Your task to perform on an android device: Open notification settings Image 0: 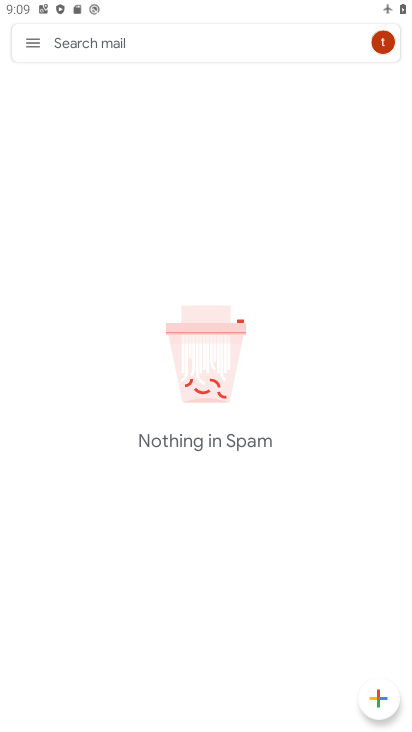
Step 0: press home button
Your task to perform on an android device: Open notification settings Image 1: 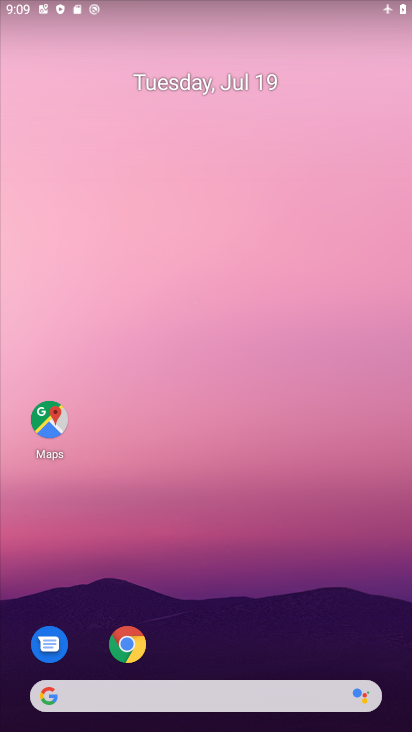
Step 1: drag from (201, 662) to (312, 15)
Your task to perform on an android device: Open notification settings Image 2: 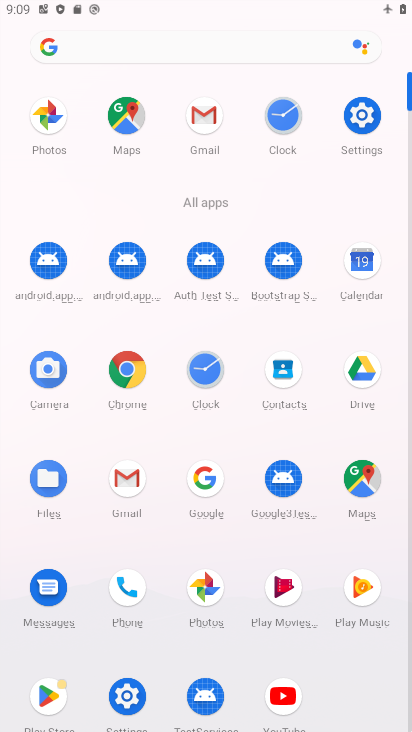
Step 2: click (362, 125)
Your task to perform on an android device: Open notification settings Image 3: 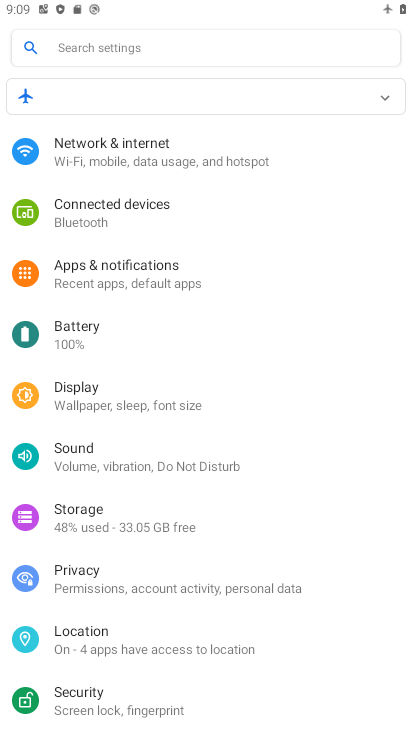
Step 3: click (131, 271)
Your task to perform on an android device: Open notification settings Image 4: 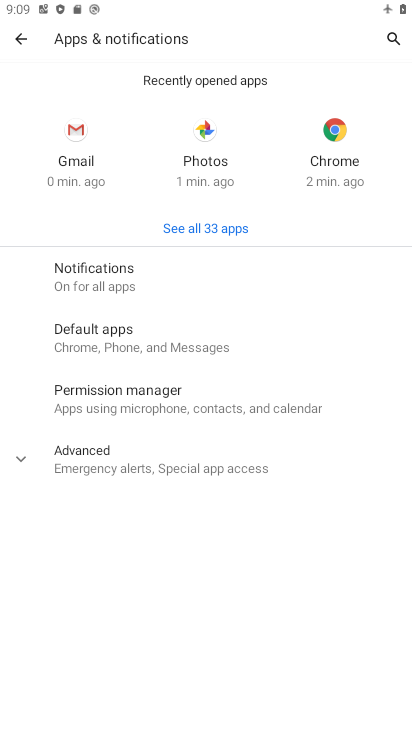
Step 4: click (131, 271)
Your task to perform on an android device: Open notification settings Image 5: 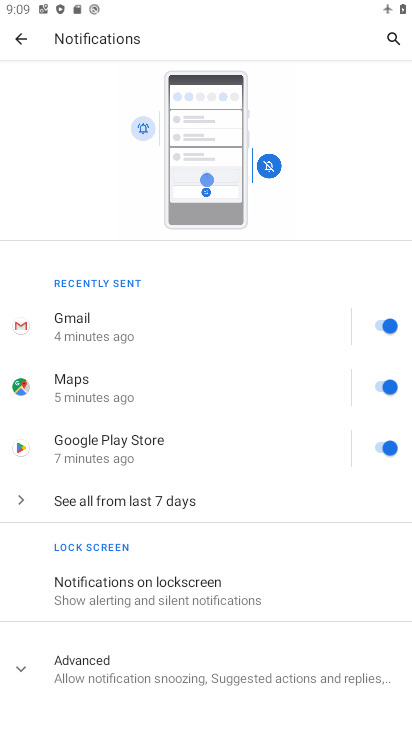
Step 5: task complete